Your task to perform on an android device: Open Google Chrome and click the shortcut for Amazon.com Image 0: 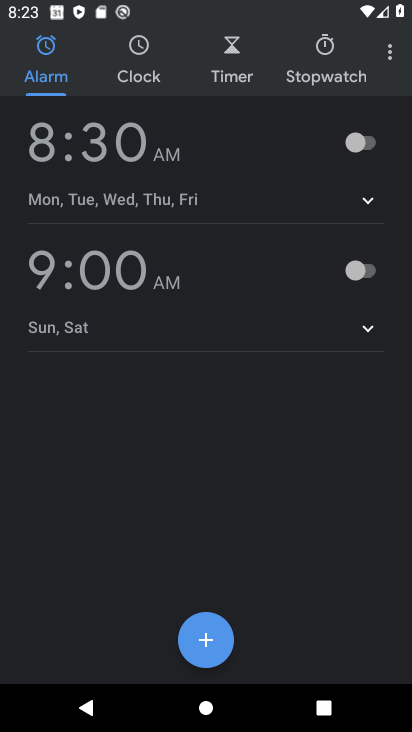
Step 0: press home button
Your task to perform on an android device: Open Google Chrome and click the shortcut for Amazon.com Image 1: 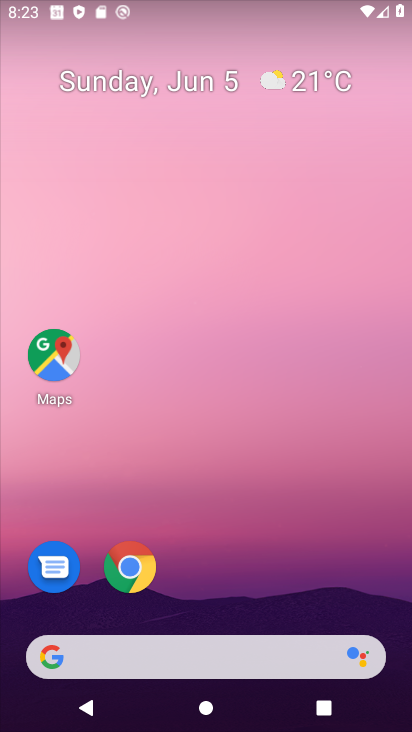
Step 1: drag from (207, 643) to (208, 419)
Your task to perform on an android device: Open Google Chrome and click the shortcut for Amazon.com Image 2: 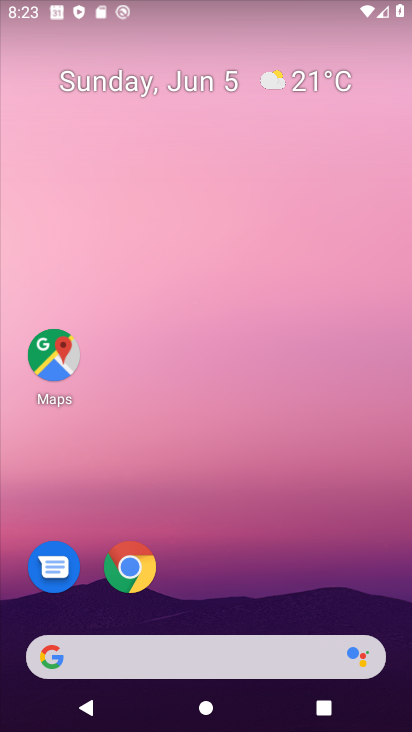
Step 2: drag from (218, 638) to (218, 258)
Your task to perform on an android device: Open Google Chrome and click the shortcut for Amazon.com Image 3: 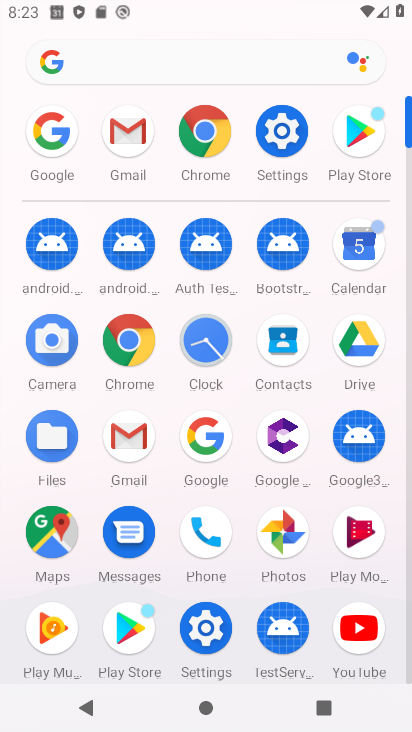
Step 3: click (201, 126)
Your task to perform on an android device: Open Google Chrome and click the shortcut for Amazon.com Image 4: 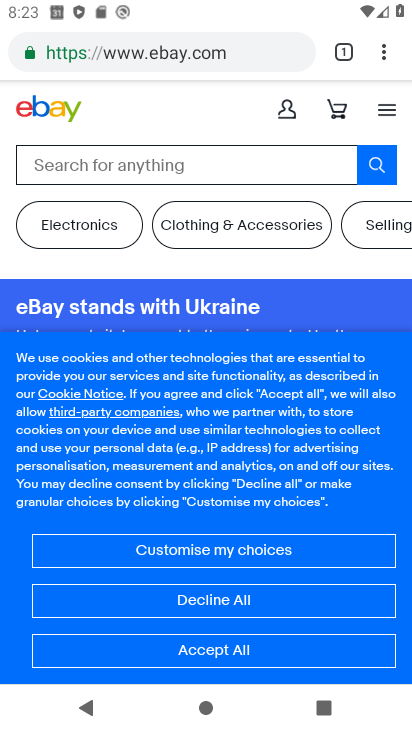
Step 4: click (355, 49)
Your task to perform on an android device: Open Google Chrome and click the shortcut for Amazon.com Image 5: 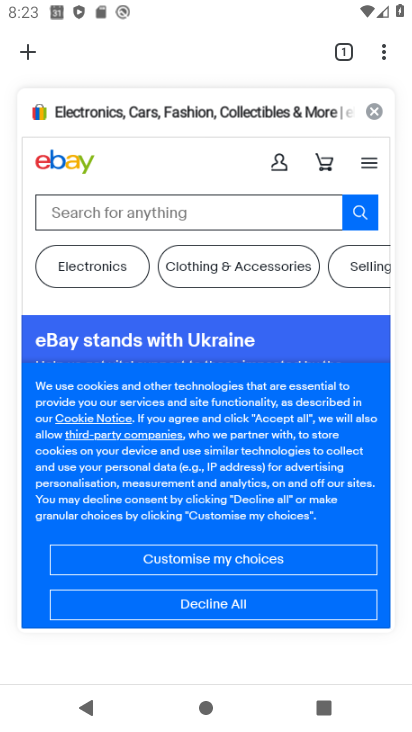
Step 5: click (34, 49)
Your task to perform on an android device: Open Google Chrome and click the shortcut for Amazon.com Image 6: 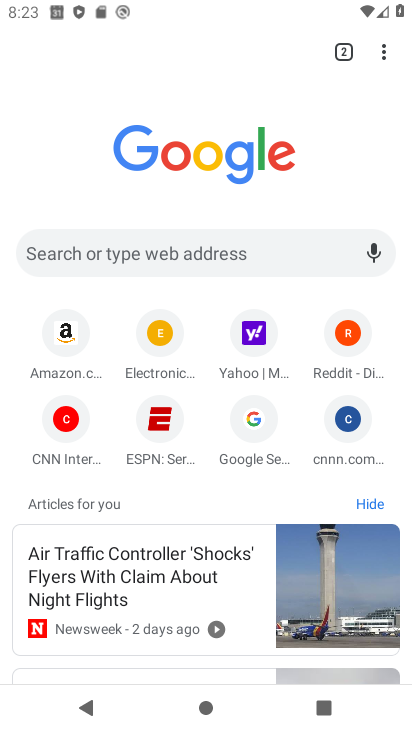
Step 6: click (60, 329)
Your task to perform on an android device: Open Google Chrome and click the shortcut for Amazon.com Image 7: 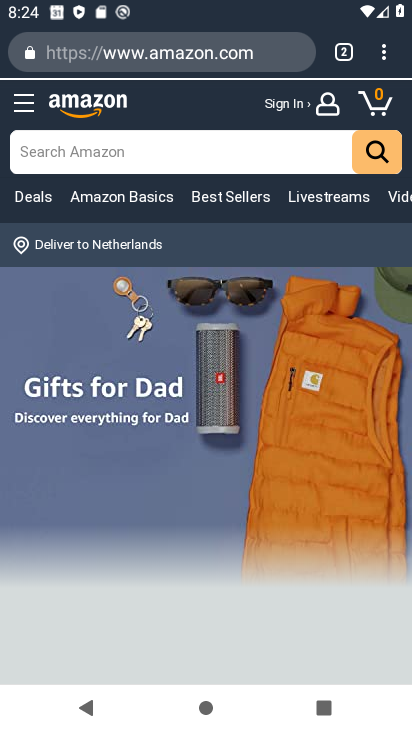
Step 7: task complete